Your task to perform on an android device: allow notifications from all sites in the chrome app Image 0: 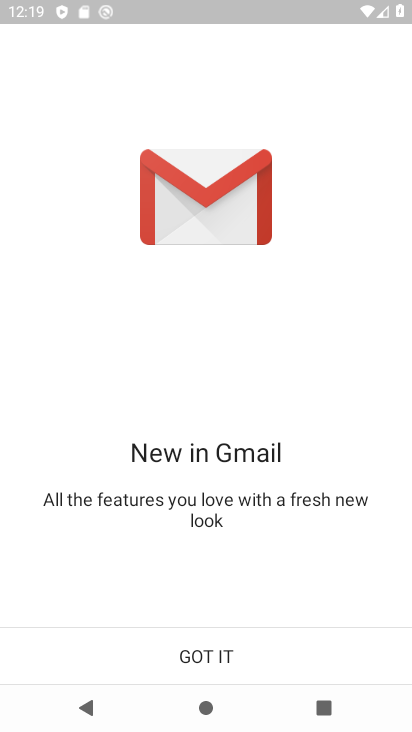
Step 0: press home button
Your task to perform on an android device: allow notifications from all sites in the chrome app Image 1: 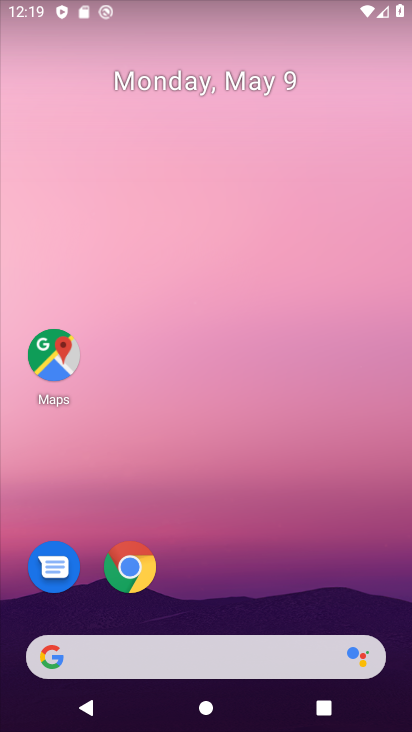
Step 1: drag from (251, 592) to (314, 12)
Your task to perform on an android device: allow notifications from all sites in the chrome app Image 2: 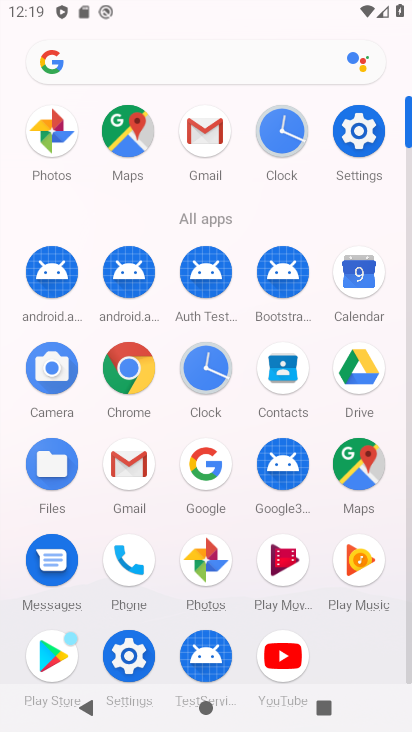
Step 2: click (136, 382)
Your task to perform on an android device: allow notifications from all sites in the chrome app Image 3: 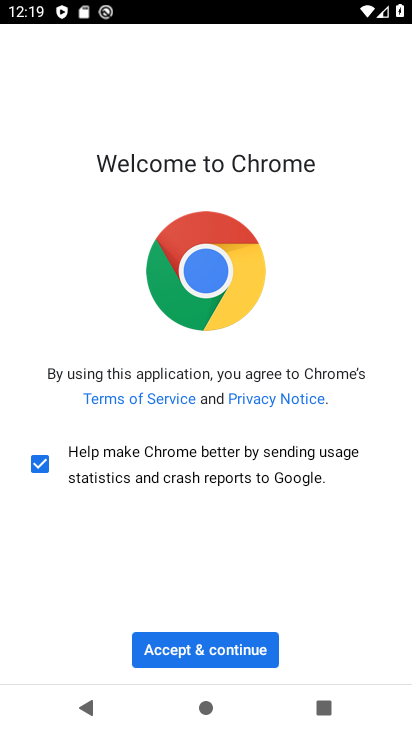
Step 3: click (182, 645)
Your task to perform on an android device: allow notifications from all sites in the chrome app Image 4: 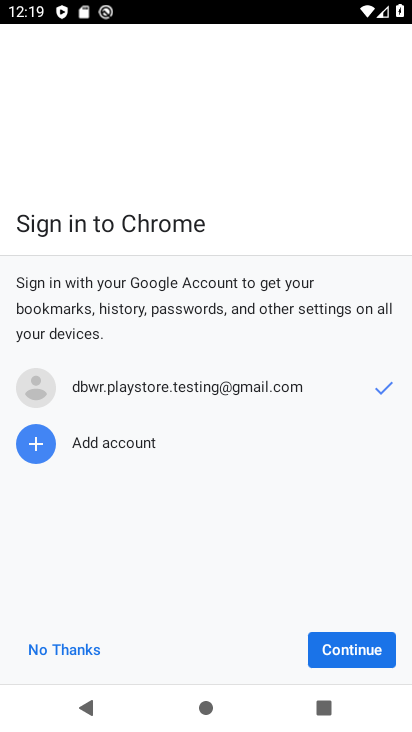
Step 4: click (362, 645)
Your task to perform on an android device: allow notifications from all sites in the chrome app Image 5: 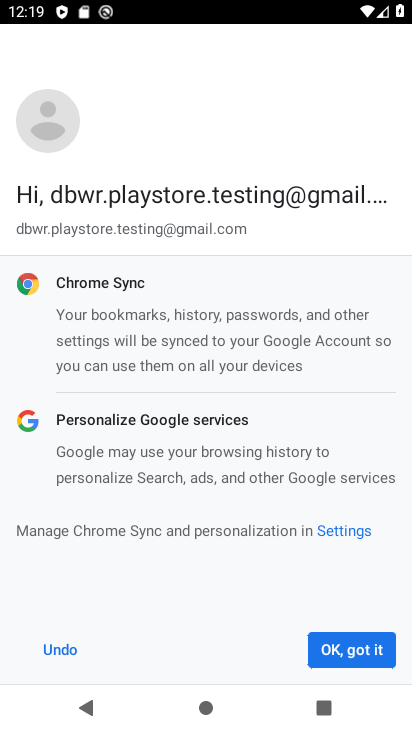
Step 5: click (362, 645)
Your task to perform on an android device: allow notifications from all sites in the chrome app Image 6: 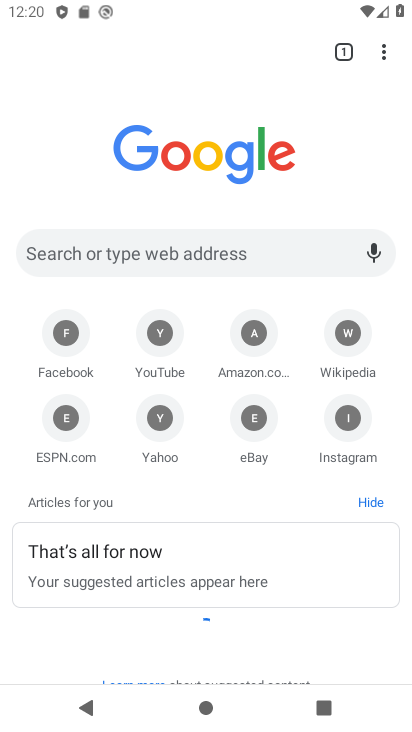
Step 6: click (391, 57)
Your task to perform on an android device: allow notifications from all sites in the chrome app Image 7: 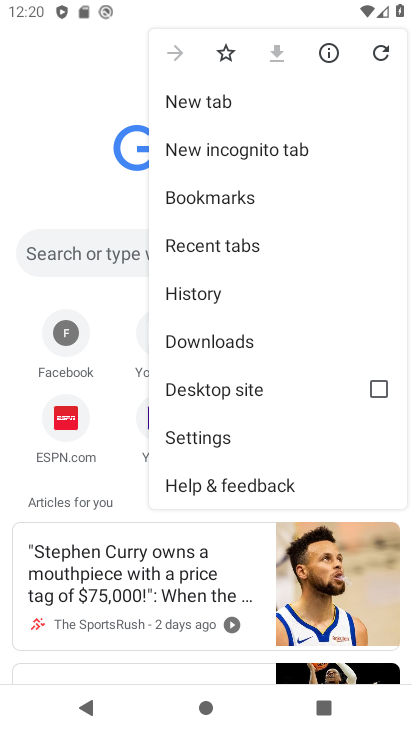
Step 7: click (214, 440)
Your task to perform on an android device: allow notifications from all sites in the chrome app Image 8: 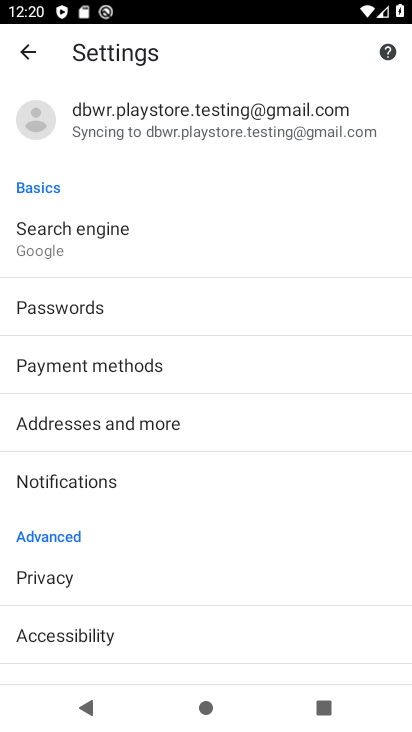
Step 8: click (103, 493)
Your task to perform on an android device: allow notifications from all sites in the chrome app Image 9: 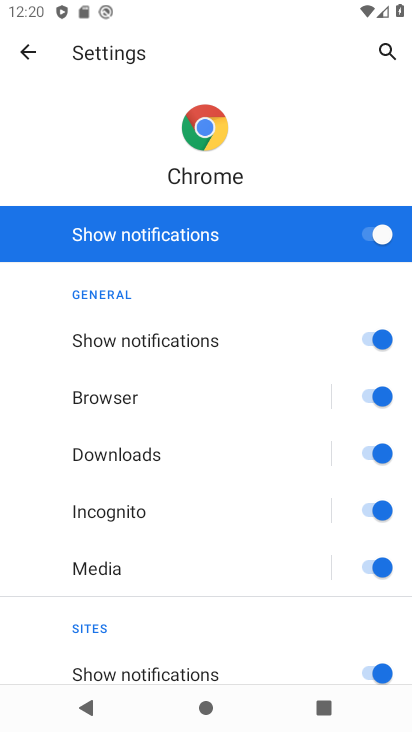
Step 9: task complete